Your task to perform on an android device: turn notification dots on Image 0: 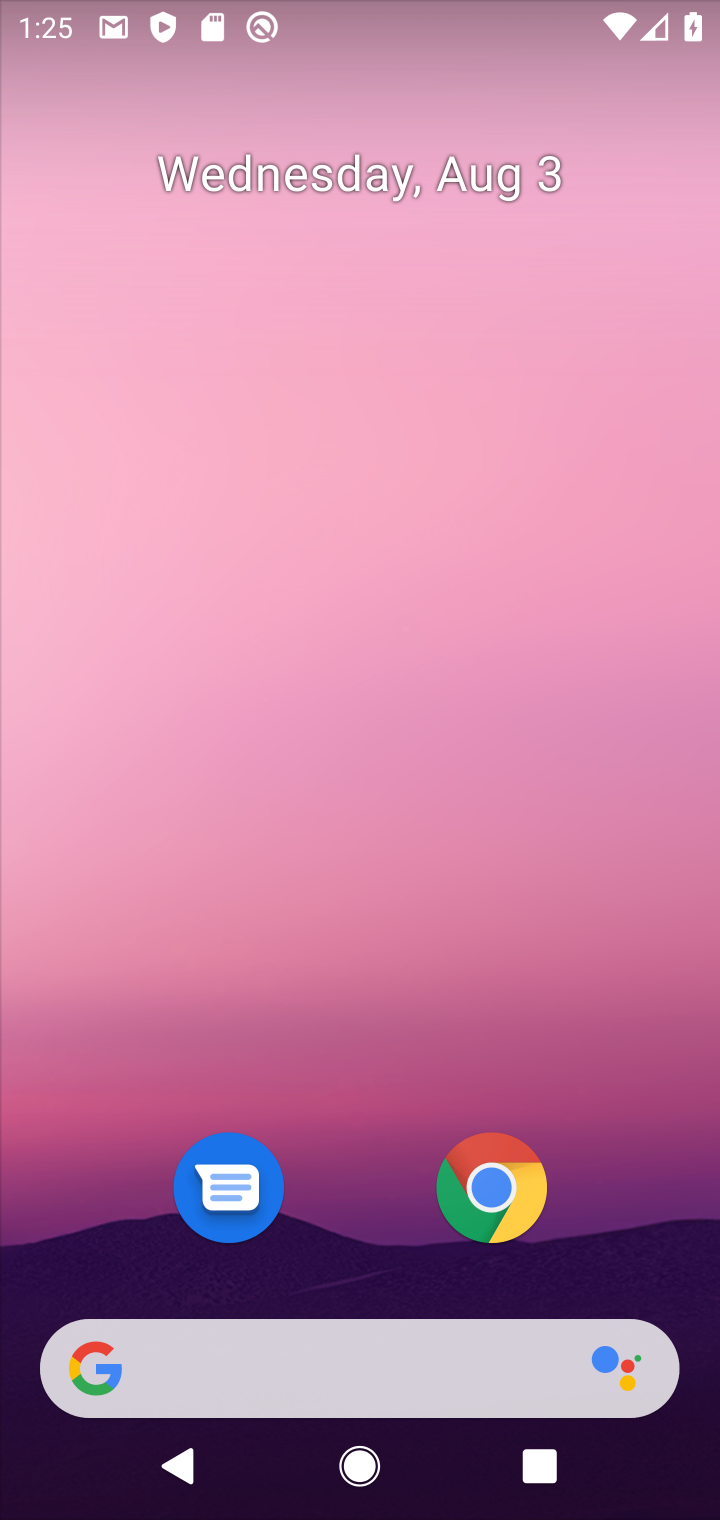
Step 0: drag from (408, 996) to (420, 31)
Your task to perform on an android device: turn notification dots on Image 1: 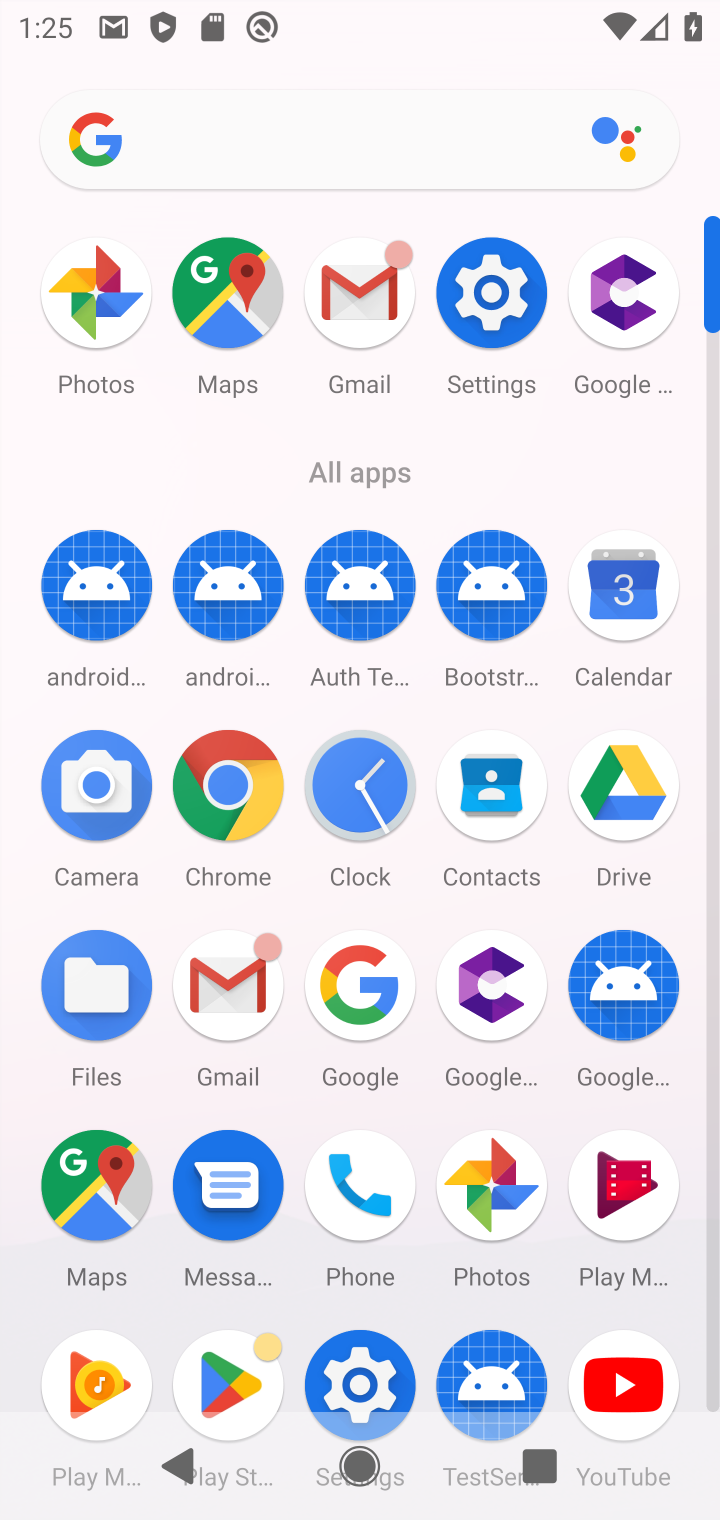
Step 1: click (481, 300)
Your task to perform on an android device: turn notification dots on Image 2: 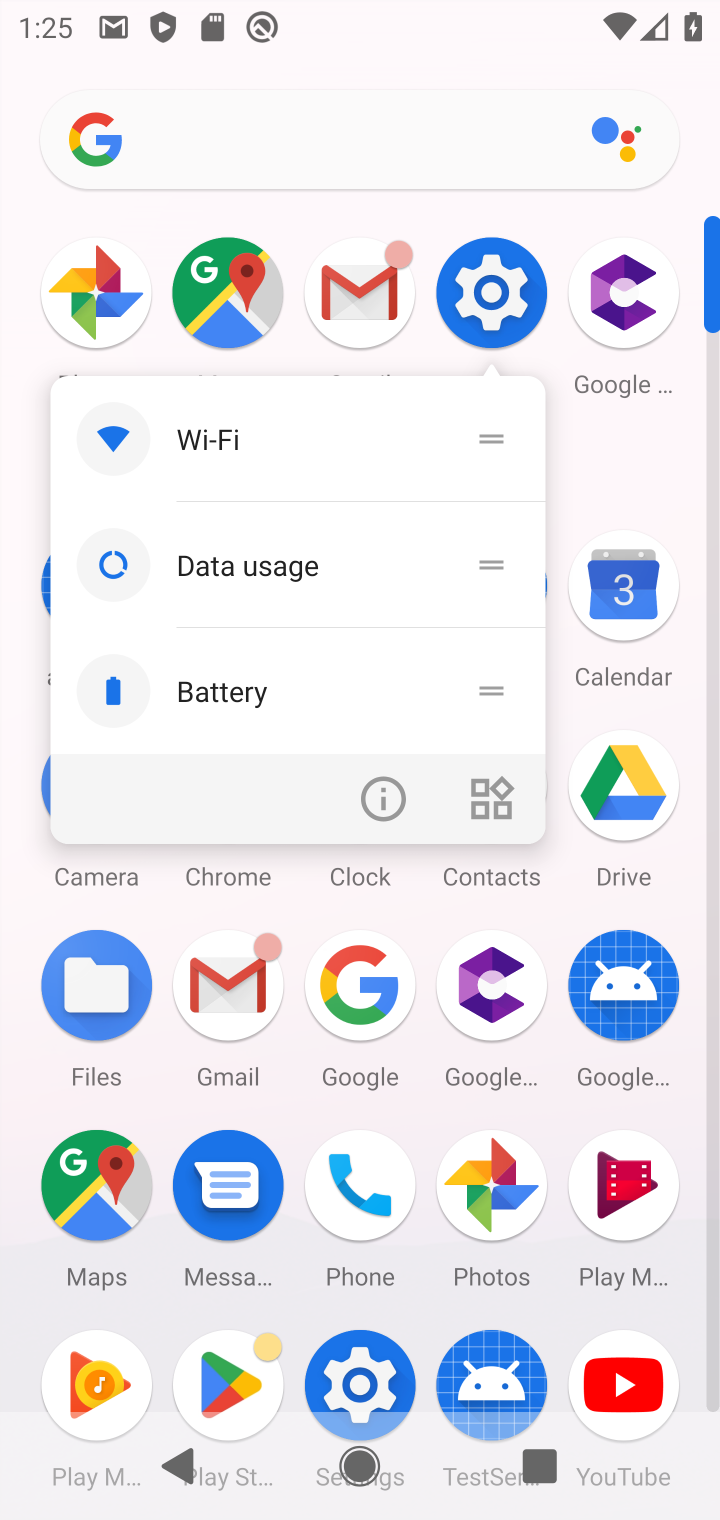
Step 2: click (481, 300)
Your task to perform on an android device: turn notification dots on Image 3: 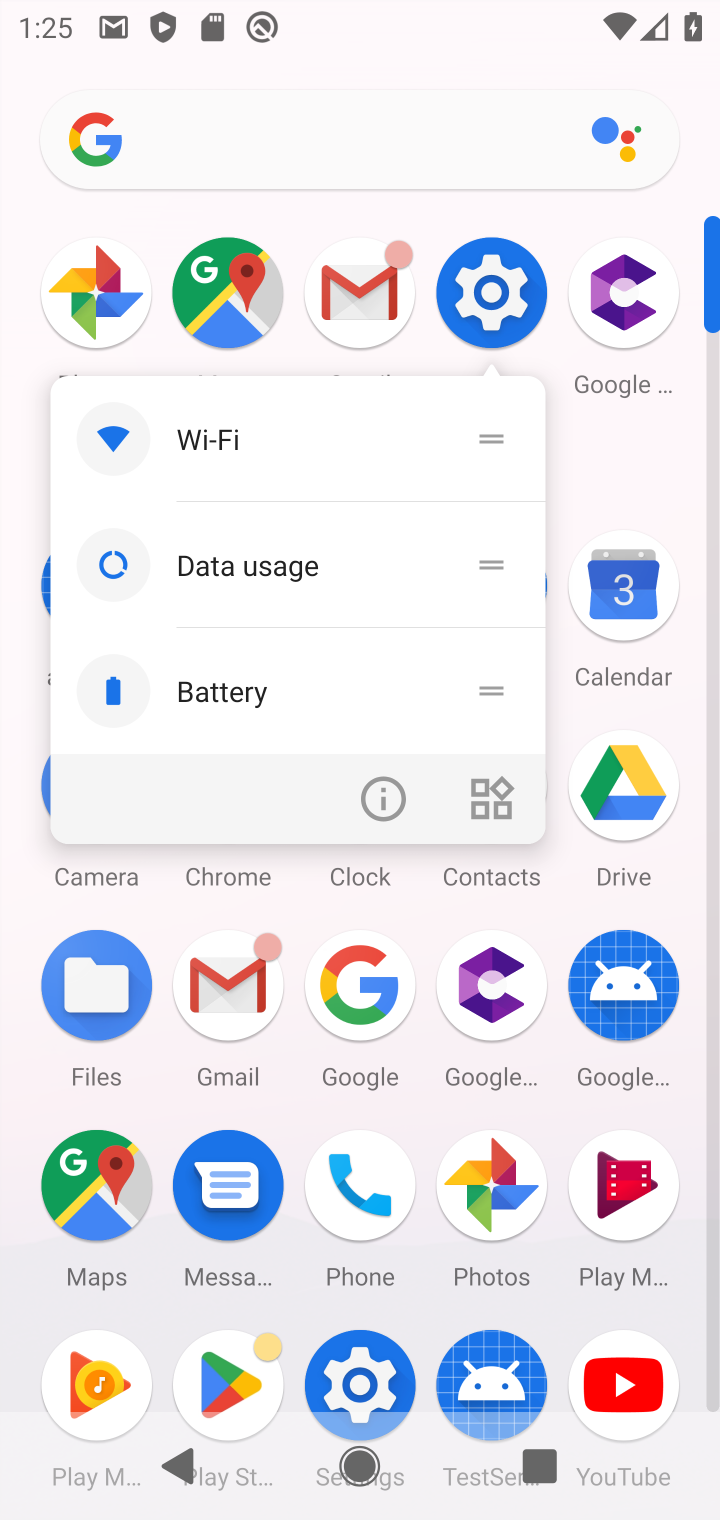
Step 3: click (481, 300)
Your task to perform on an android device: turn notification dots on Image 4: 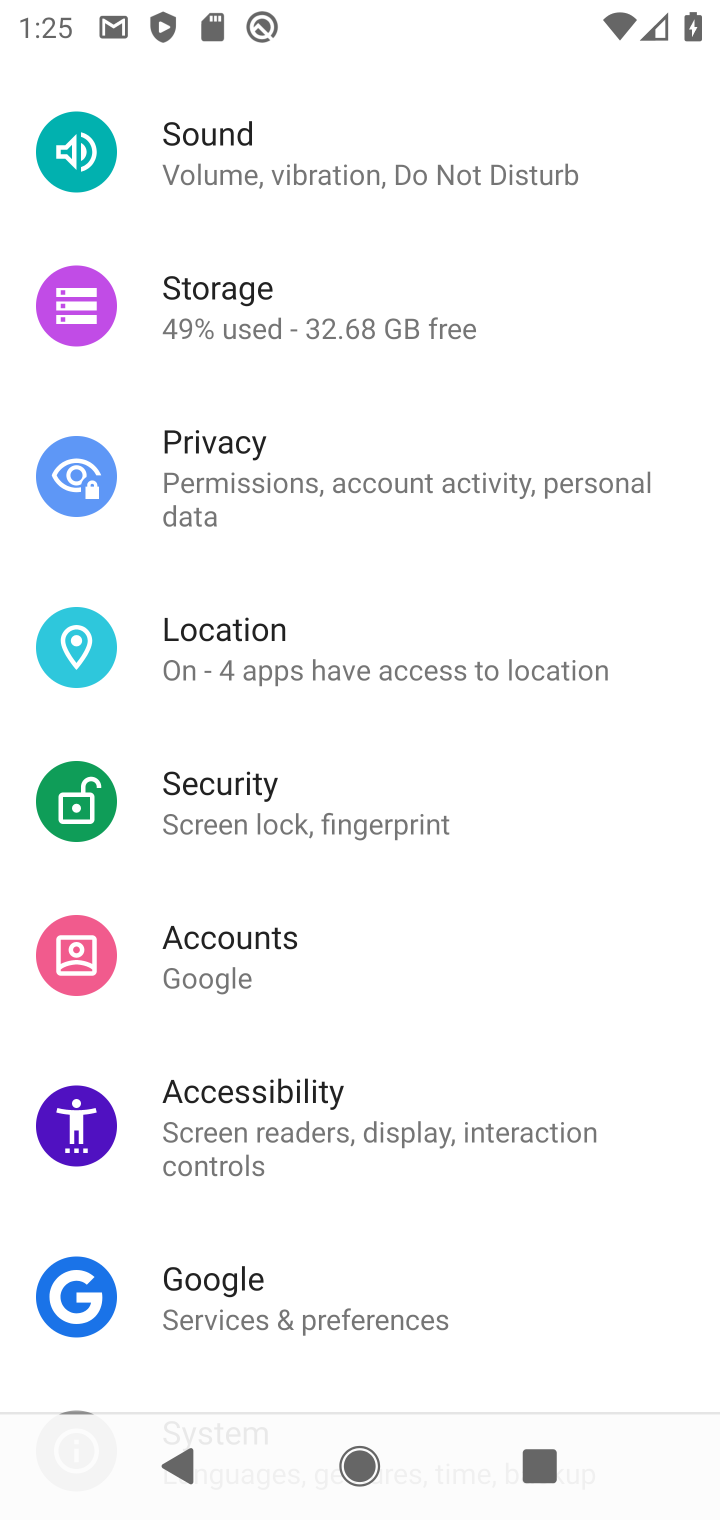
Step 4: drag from (436, 337) to (422, 1157)
Your task to perform on an android device: turn notification dots on Image 5: 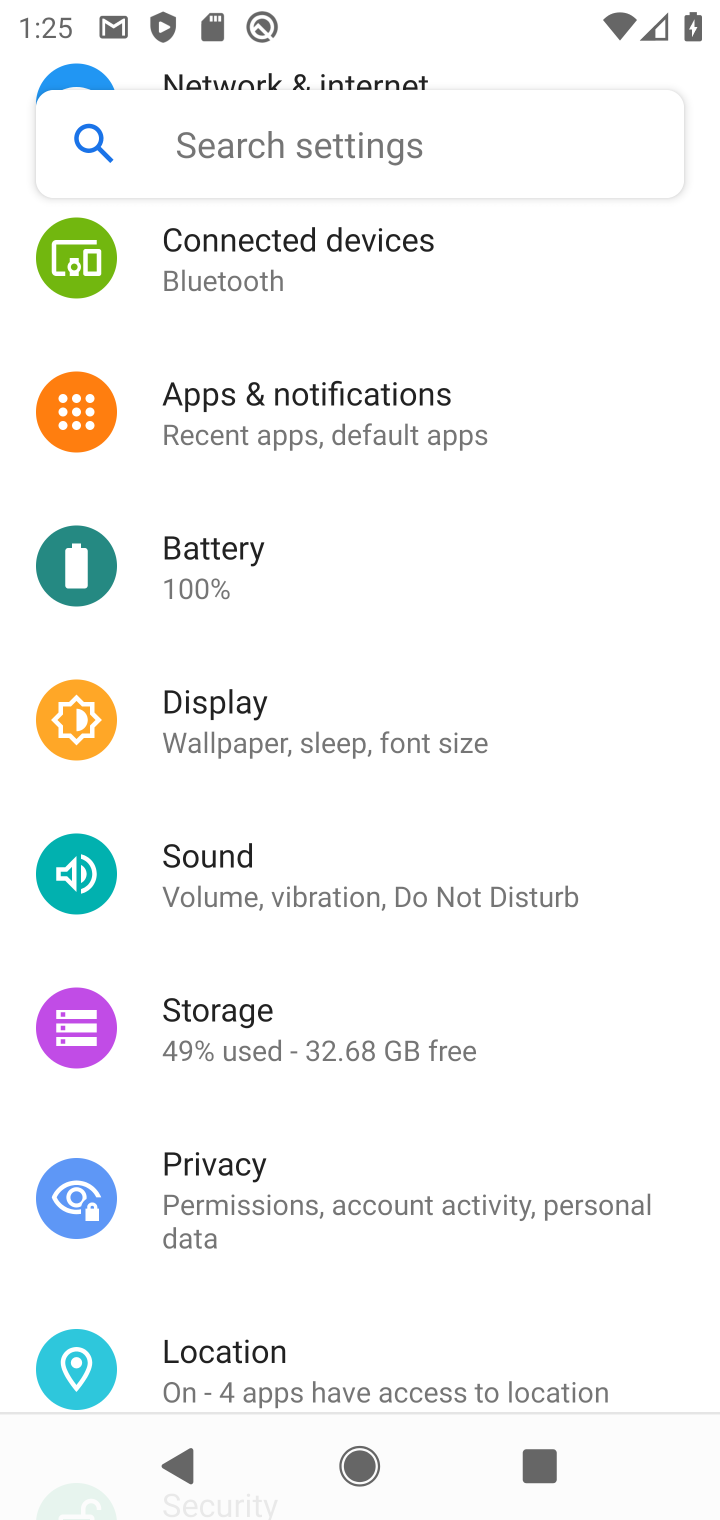
Step 5: click (409, 396)
Your task to perform on an android device: turn notification dots on Image 6: 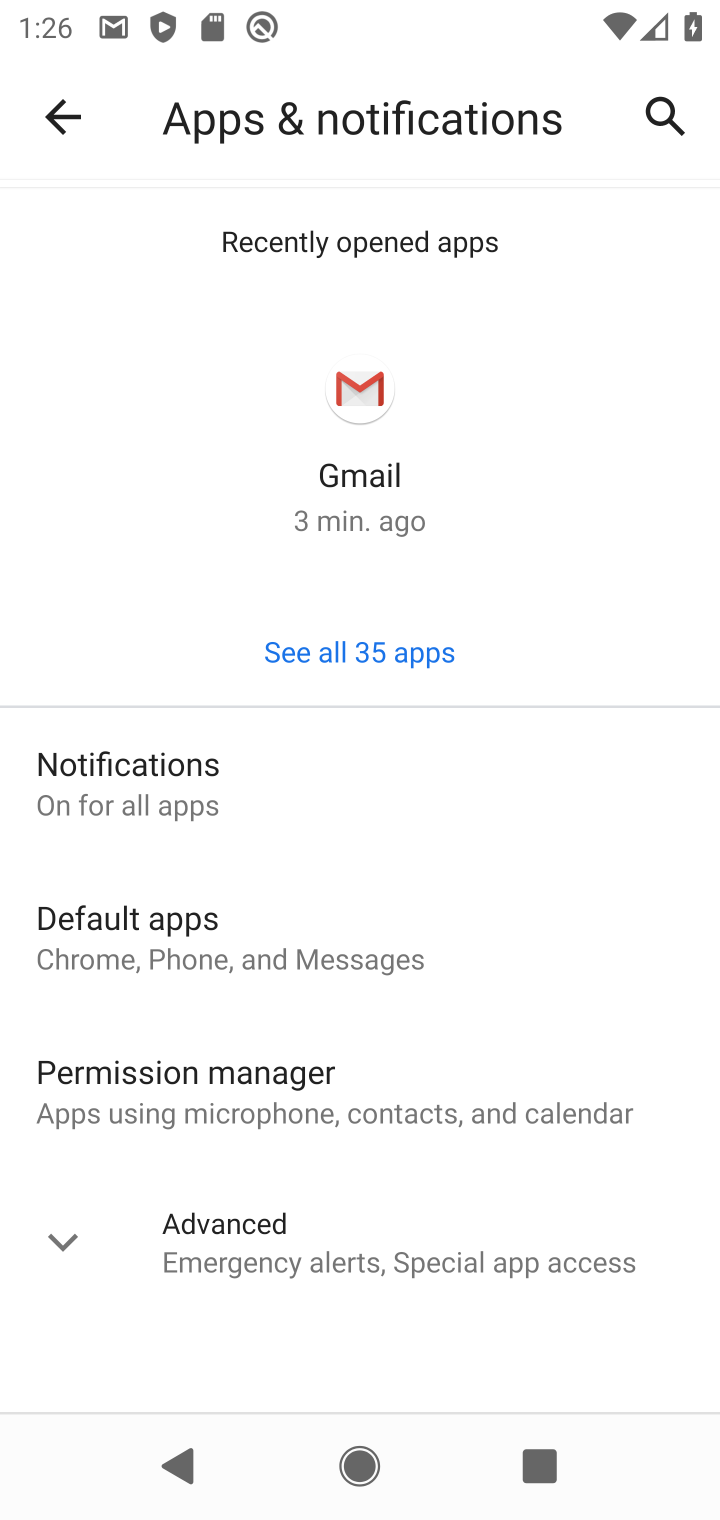
Step 6: click (62, 1236)
Your task to perform on an android device: turn notification dots on Image 7: 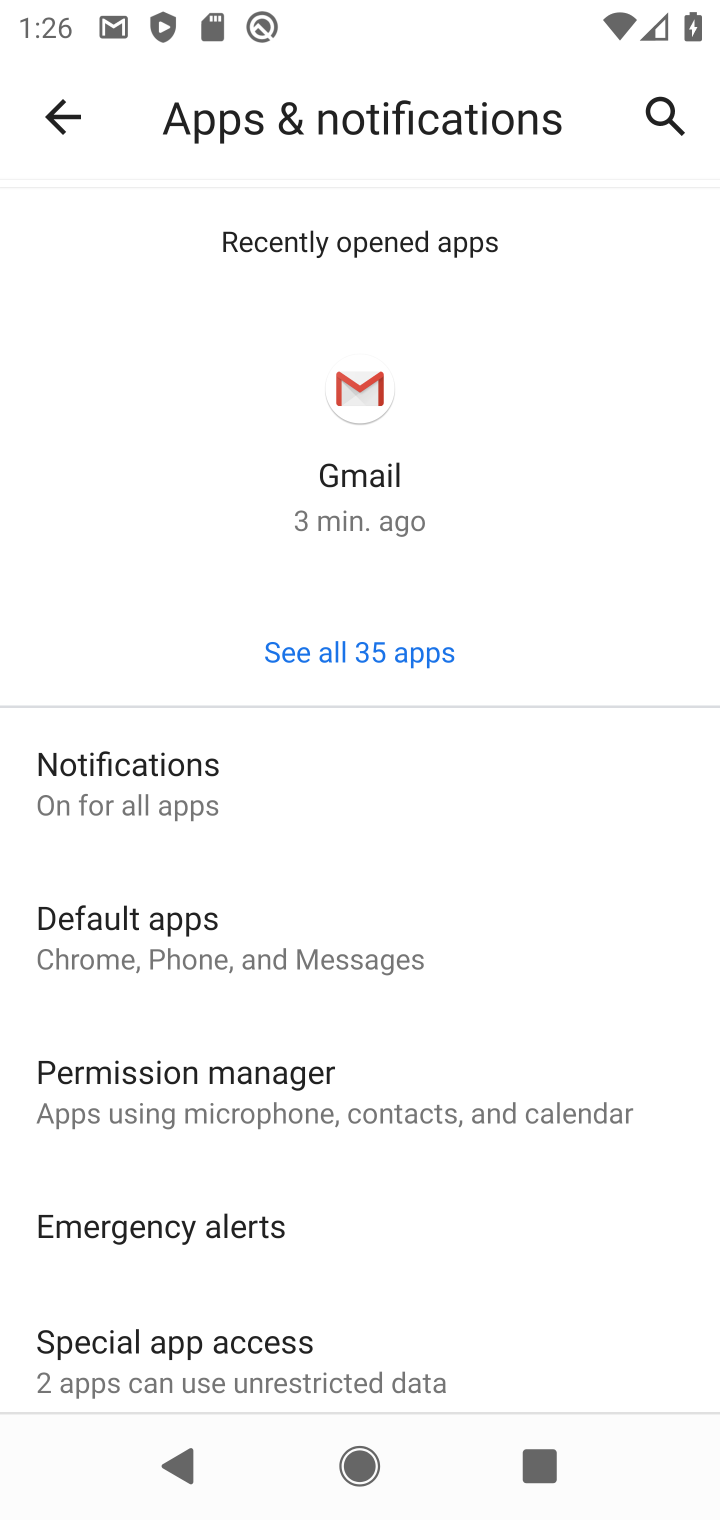
Step 7: drag from (390, 957) to (493, 435)
Your task to perform on an android device: turn notification dots on Image 8: 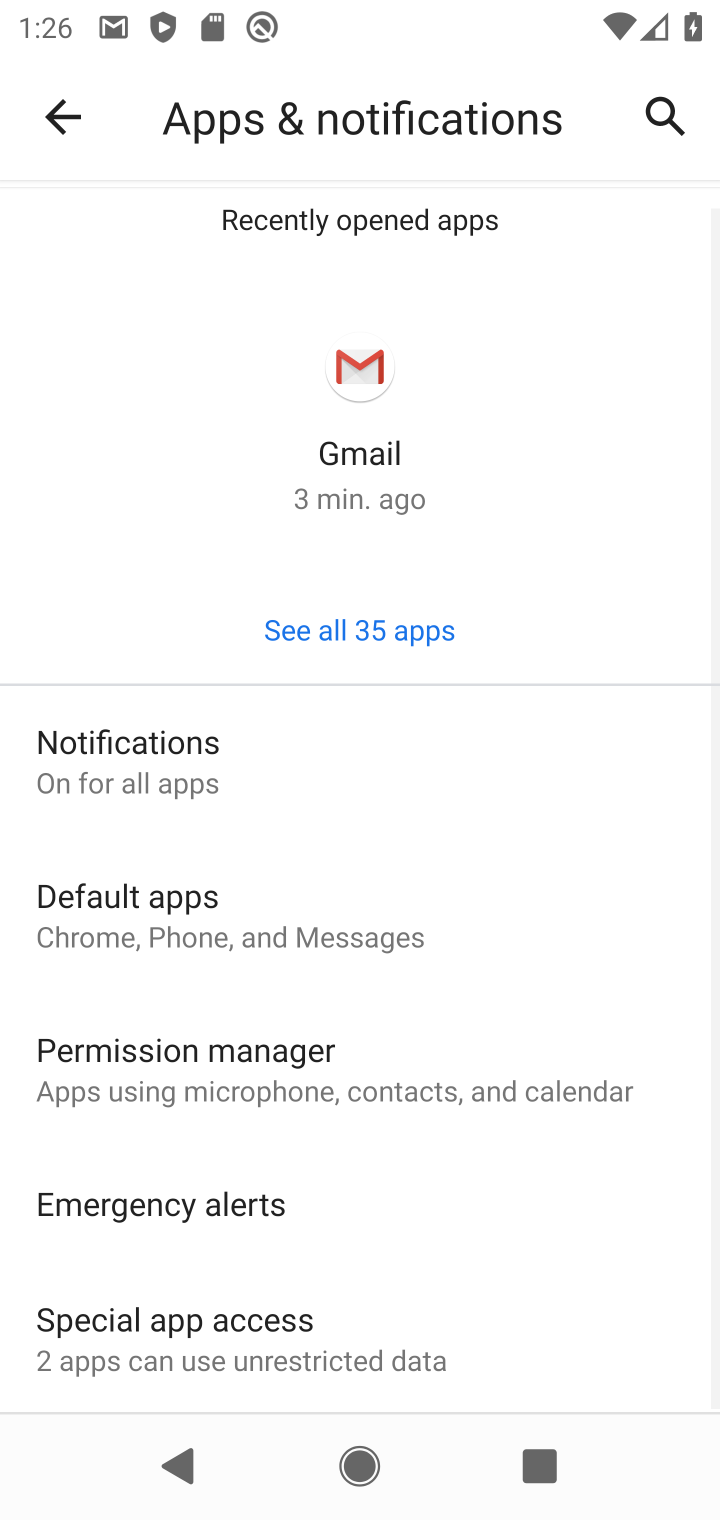
Step 8: click (186, 779)
Your task to perform on an android device: turn notification dots on Image 9: 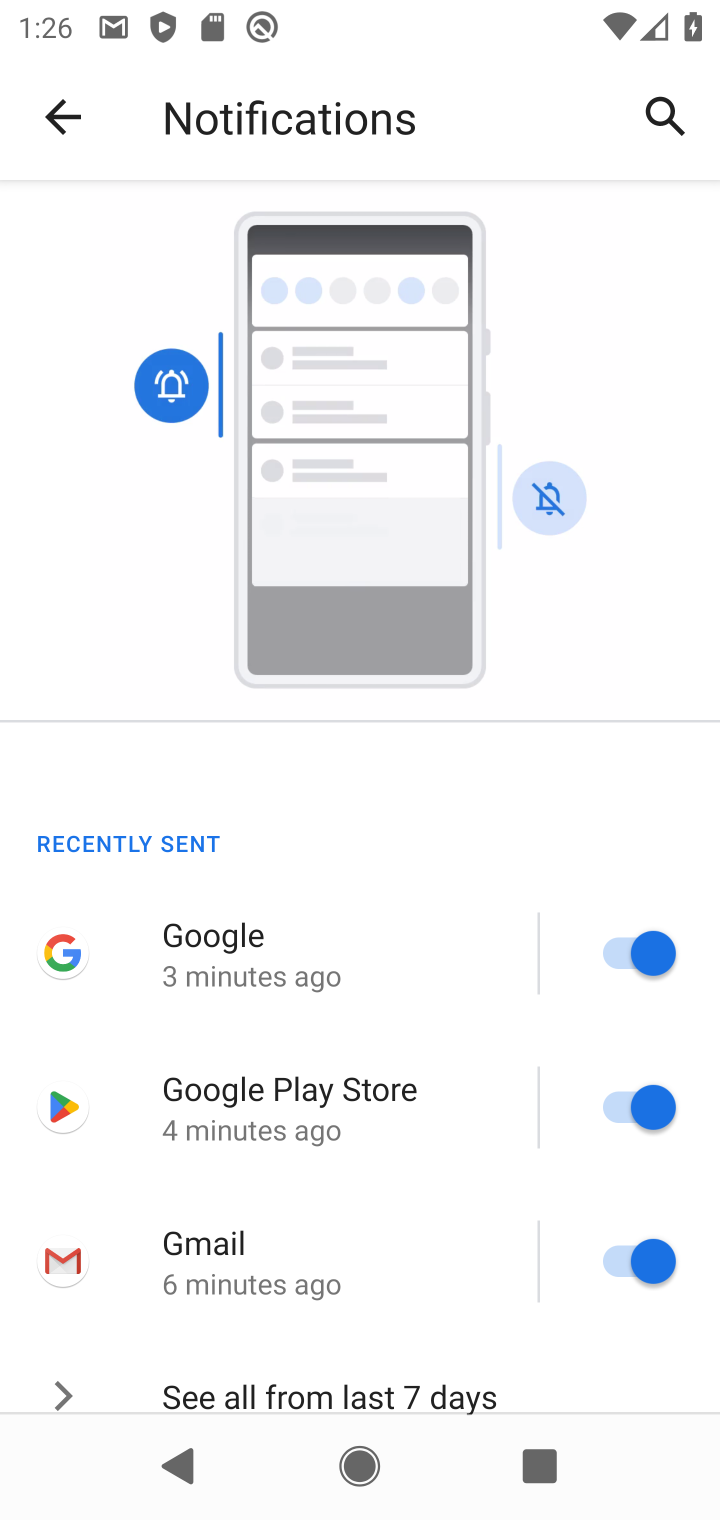
Step 9: drag from (387, 1055) to (408, 330)
Your task to perform on an android device: turn notification dots on Image 10: 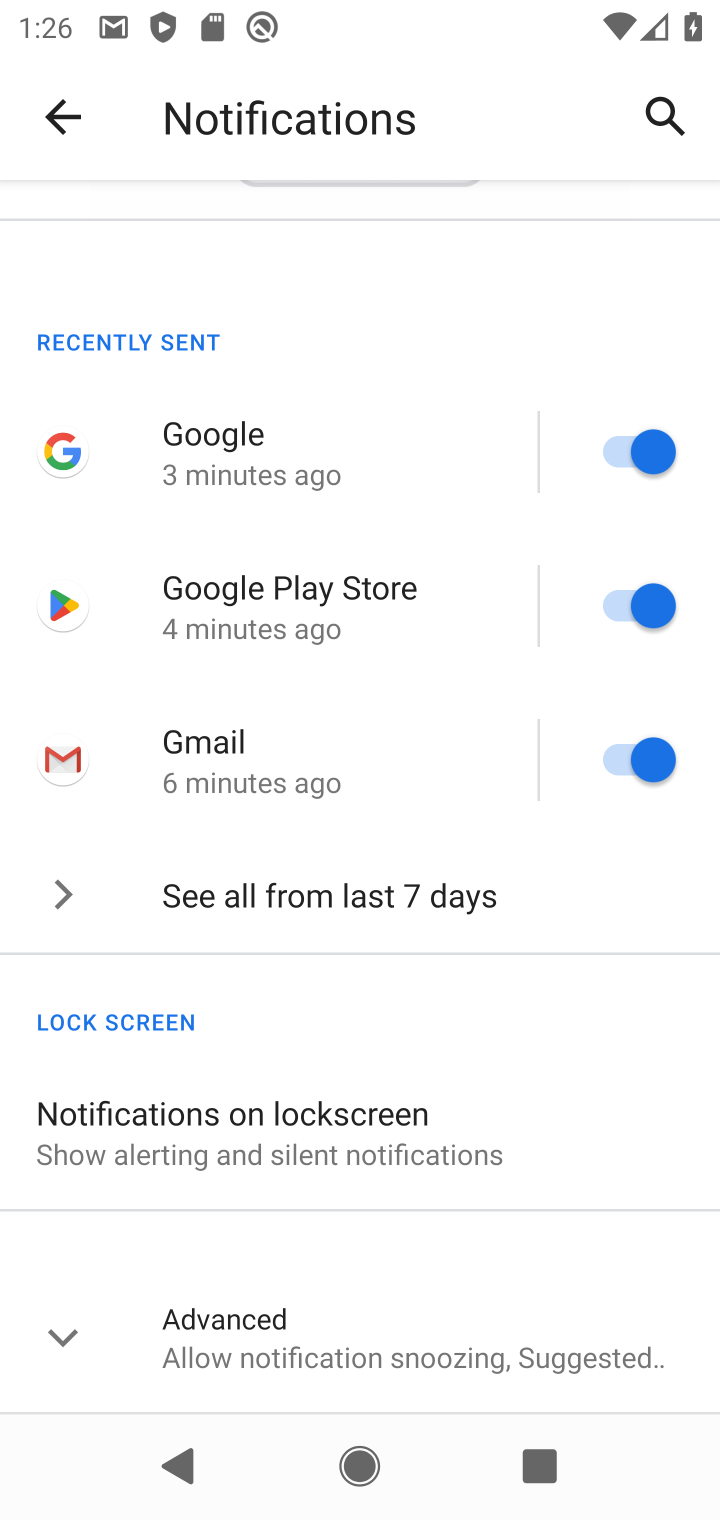
Step 10: click (64, 1333)
Your task to perform on an android device: turn notification dots on Image 11: 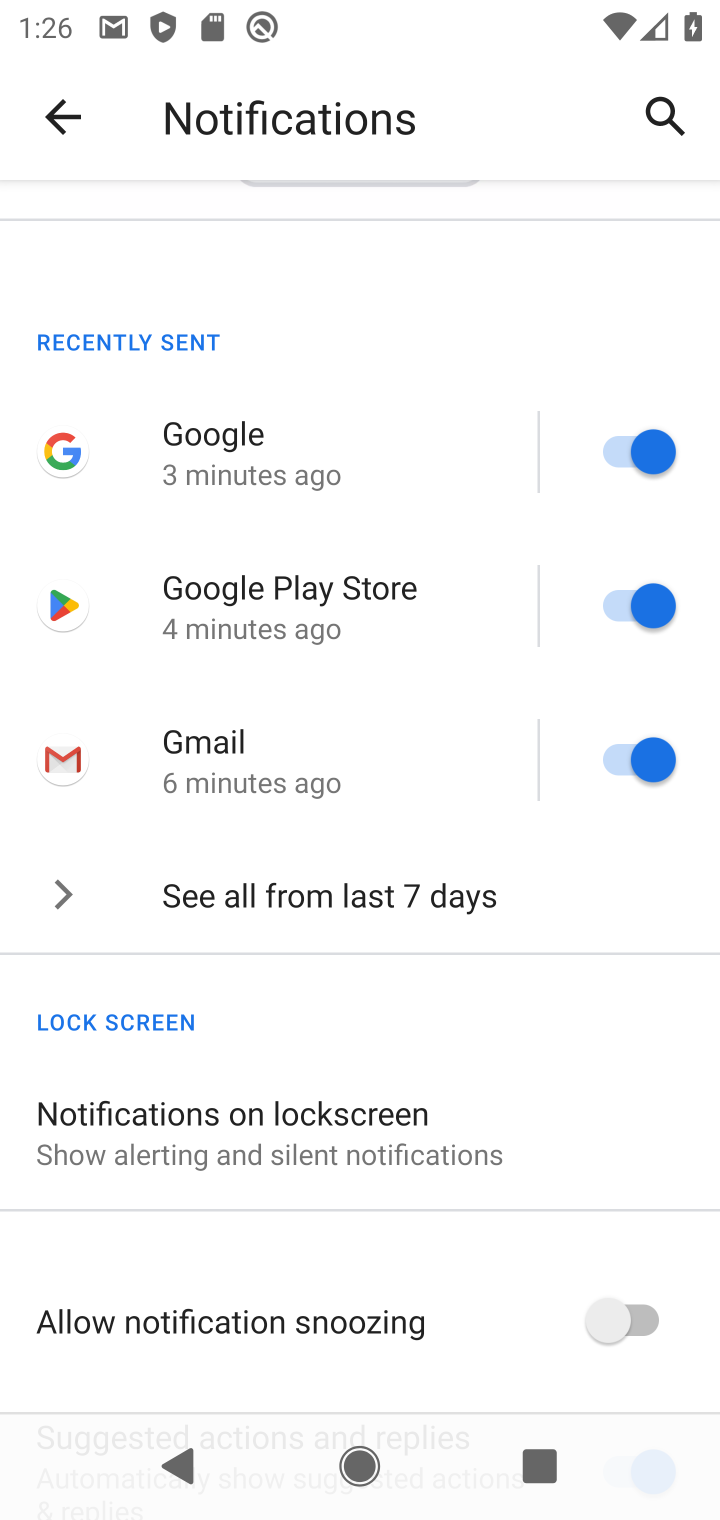
Step 11: task complete